Your task to perform on an android device: Open location settings Image 0: 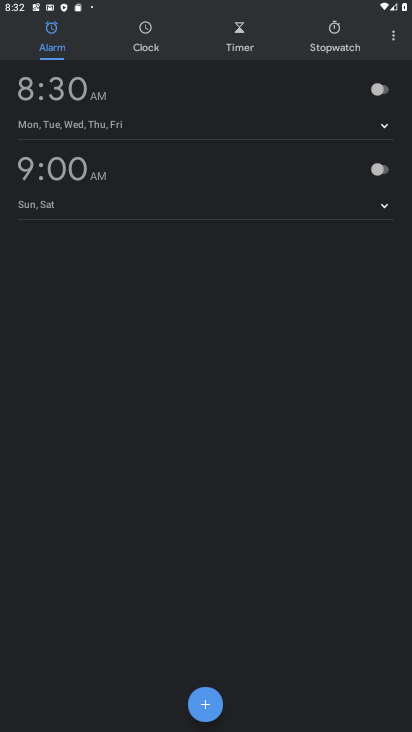
Step 0: press home button
Your task to perform on an android device: Open location settings Image 1: 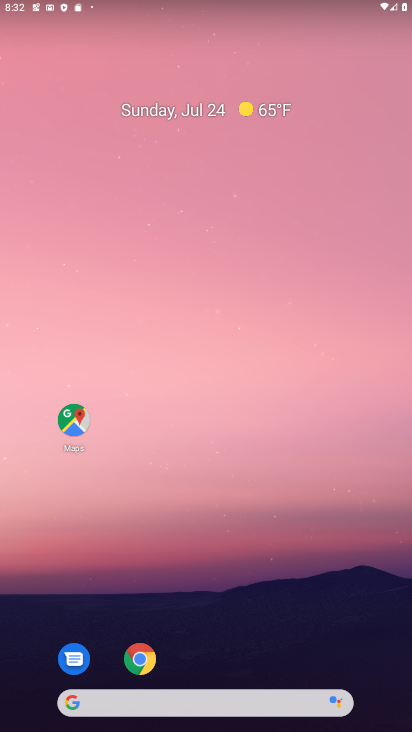
Step 1: drag from (284, 671) to (287, 33)
Your task to perform on an android device: Open location settings Image 2: 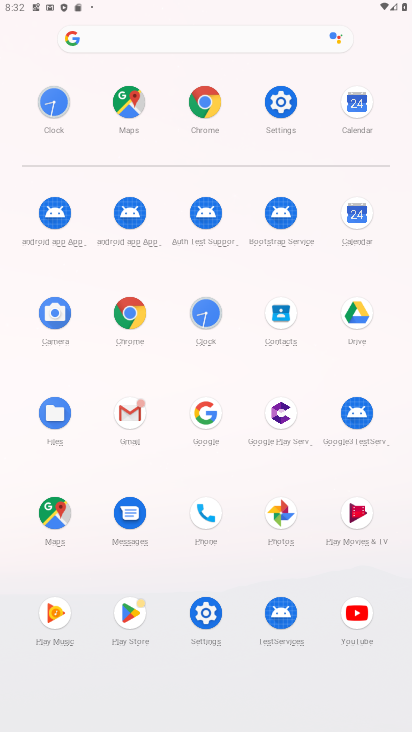
Step 2: click (283, 104)
Your task to perform on an android device: Open location settings Image 3: 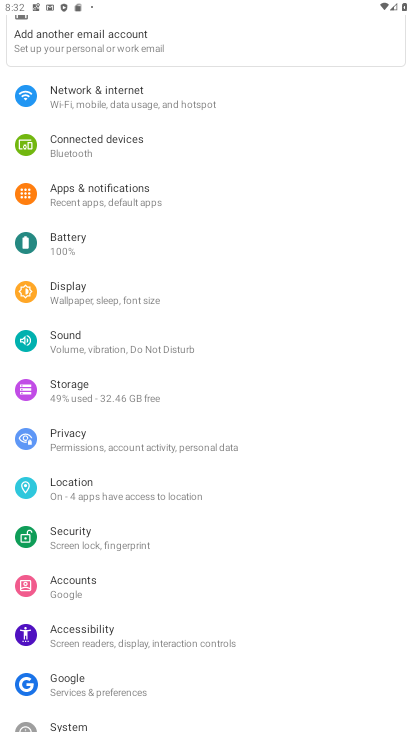
Step 3: click (87, 493)
Your task to perform on an android device: Open location settings Image 4: 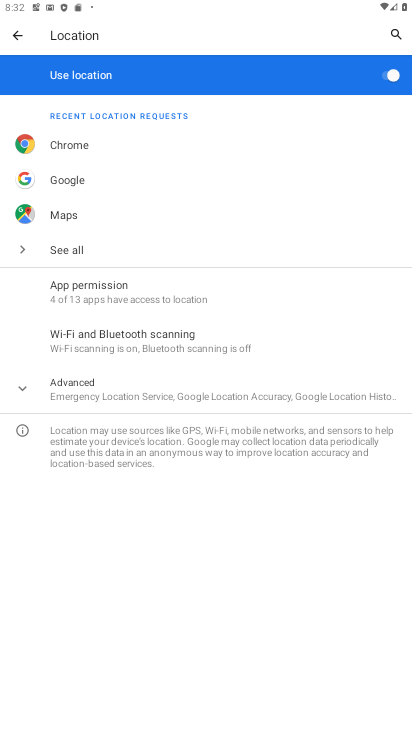
Step 4: task complete